Your task to perform on an android device: Open calendar and show me the fourth week of next month Image 0: 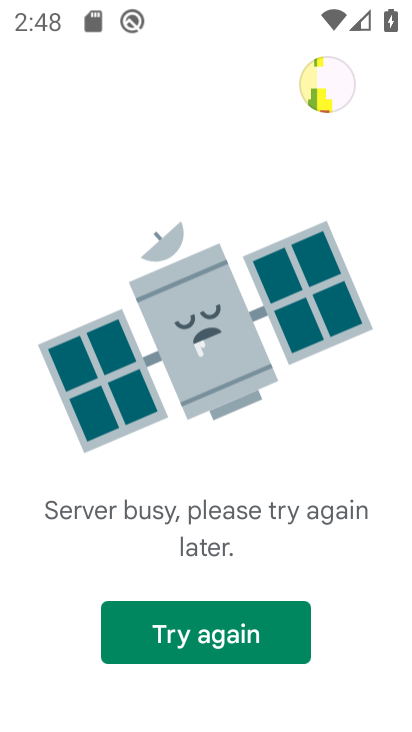
Step 0: press home button
Your task to perform on an android device: Open calendar and show me the fourth week of next month Image 1: 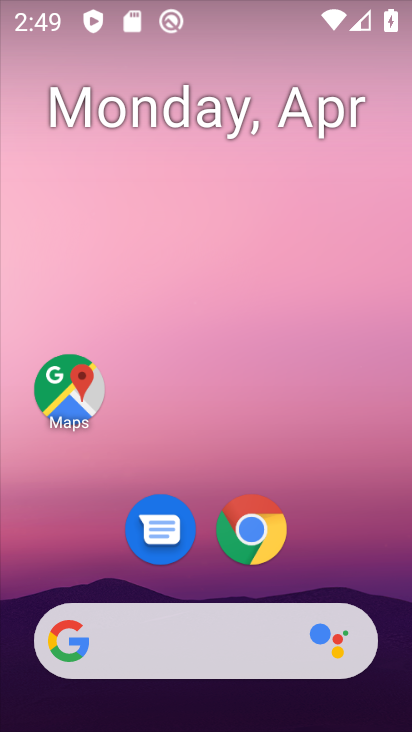
Step 1: drag from (259, 651) to (341, 209)
Your task to perform on an android device: Open calendar and show me the fourth week of next month Image 2: 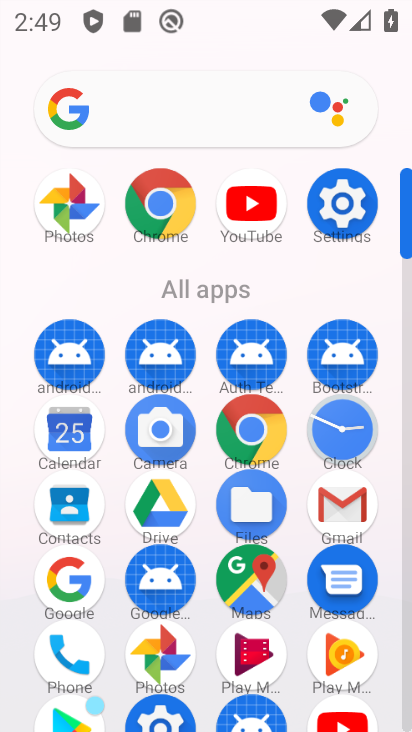
Step 2: click (55, 434)
Your task to perform on an android device: Open calendar and show me the fourth week of next month Image 3: 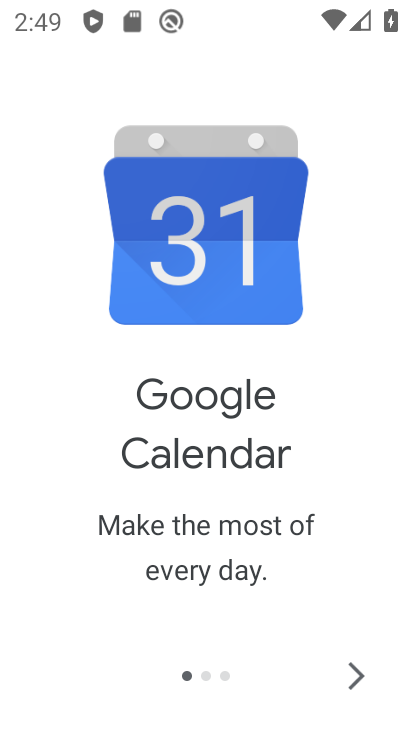
Step 3: click (333, 685)
Your task to perform on an android device: Open calendar and show me the fourth week of next month Image 4: 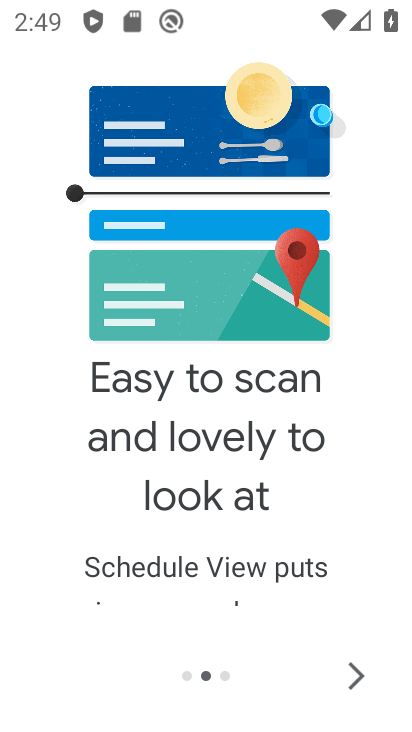
Step 4: click (348, 676)
Your task to perform on an android device: Open calendar and show me the fourth week of next month Image 5: 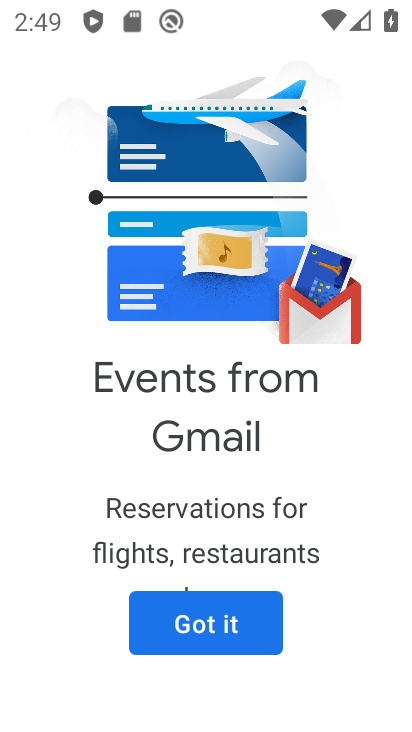
Step 5: click (222, 624)
Your task to perform on an android device: Open calendar and show me the fourth week of next month Image 6: 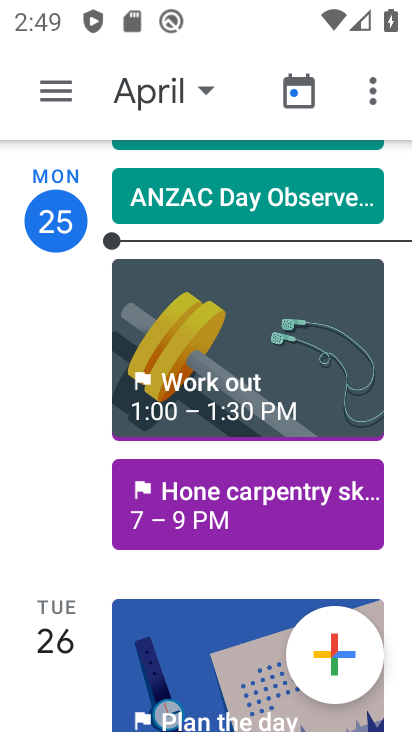
Step 6: click (47, 107)
Your task to perform on an android device: Open calendar and show me the fourth week of next month Image 7: 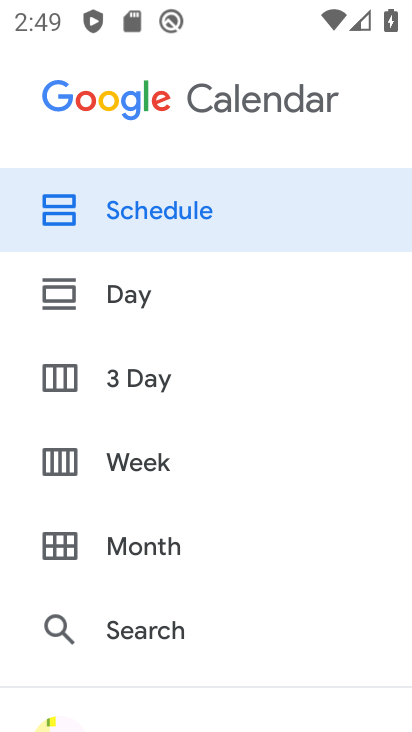
Step 7: click (157, 557)
Your task to perform on an android device: Open calendar and show me the fourth week of next month Image 8: 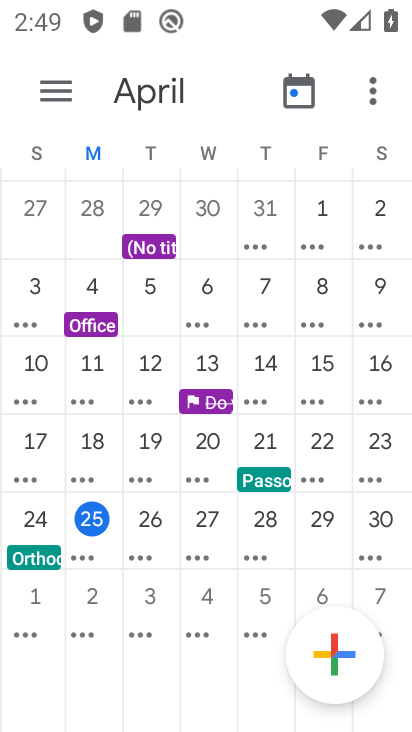
Step 8: drag from (355, 371) to (0, 446)
Your task to perform on an android device: Open calendar and show me the fourth week of next month Image 9: 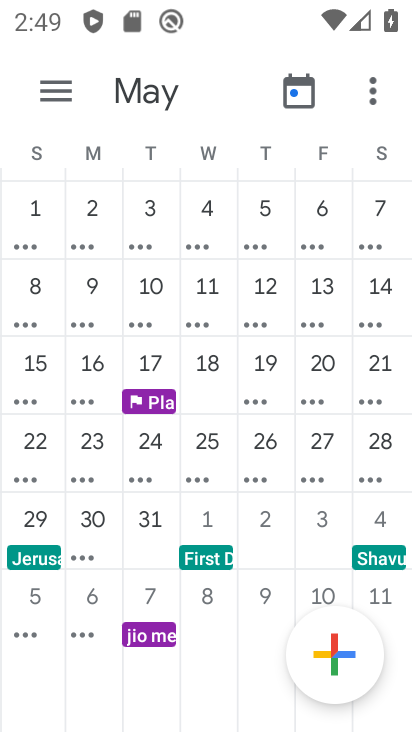
Step 9: click (83, 456)
Your task to perform on an android device: Open calendar and show me the fourth week of next month Image 10: 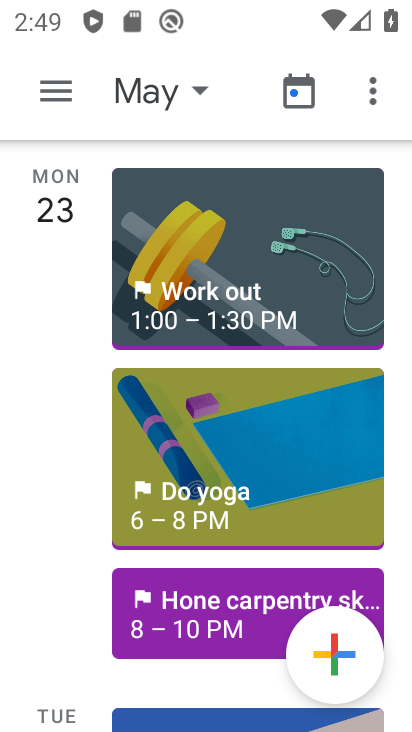
Step 10: task complete